Your task to perform on an android device: Open Wikipedia Image 0: 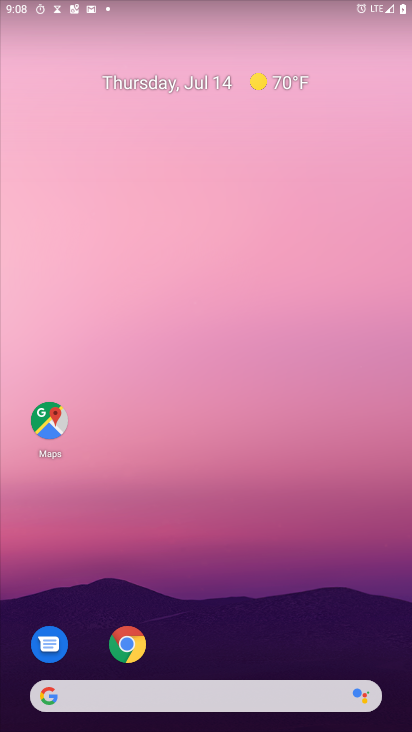
Step 0: click (125, 649)
Your task to perform on an android device: Open Wikipedia Image 1: 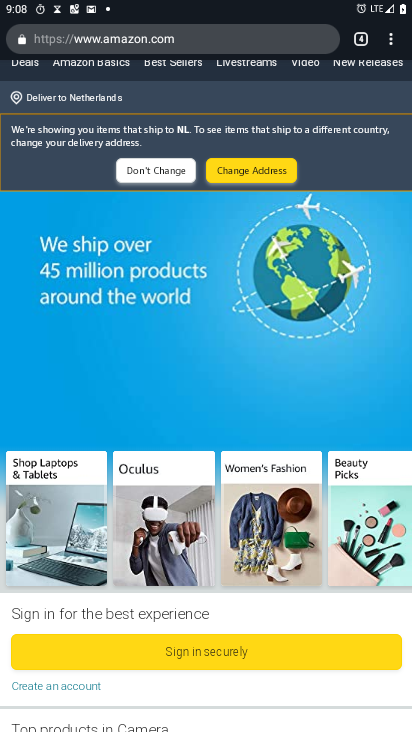
Step 1: drag from (394, 35) to (279, 125)
Your task to perform on an android device: Open Wikipedia Image 2: 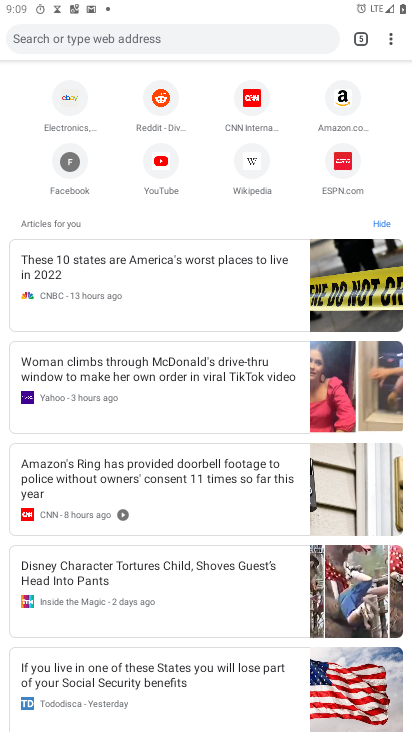
Step 2: click (251, 159)
Your task to perform on an android device: Open Wikipedia Image 3: 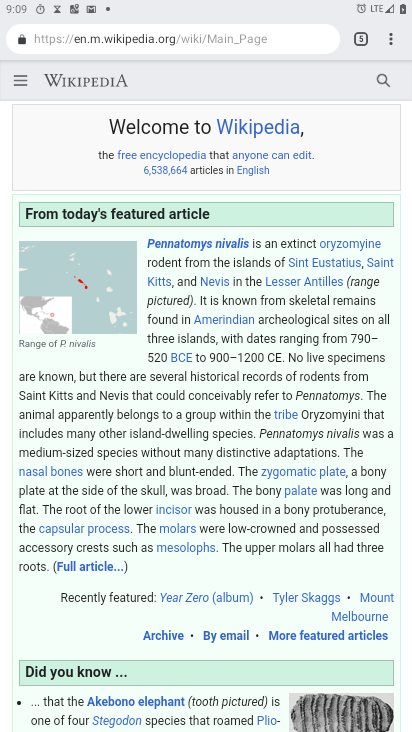
Step 3: task complete